Your task to perform on an android device: Go to internet settings Image 0: 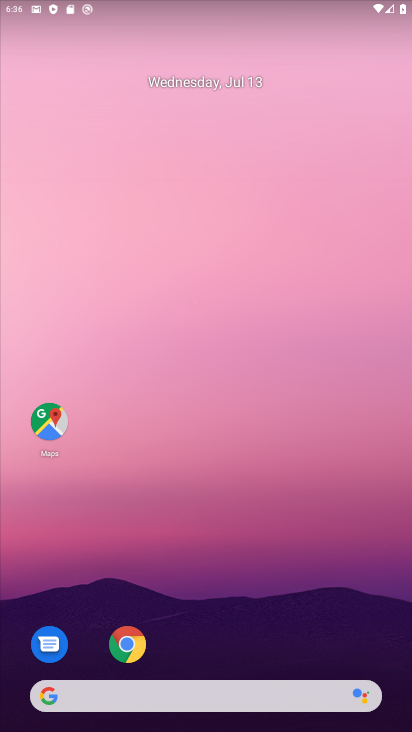
Step 0: press home button
Your task to perform on an android device: Go to internet settings Image 1: 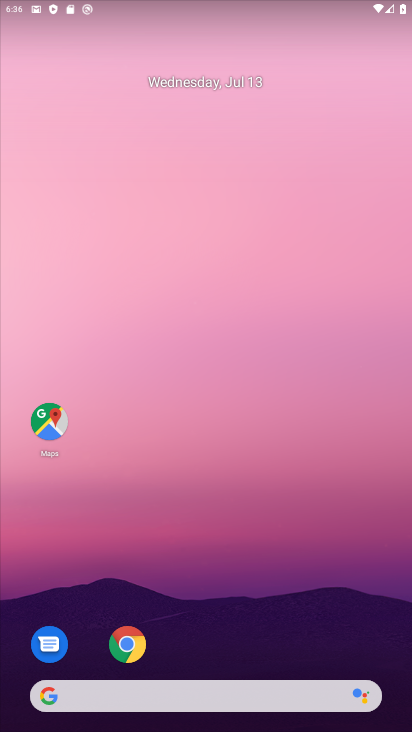
Step 1: drag from (202, 577) to (135, 238)
Your task to perform on an android device: Go to internet settings Image 2: 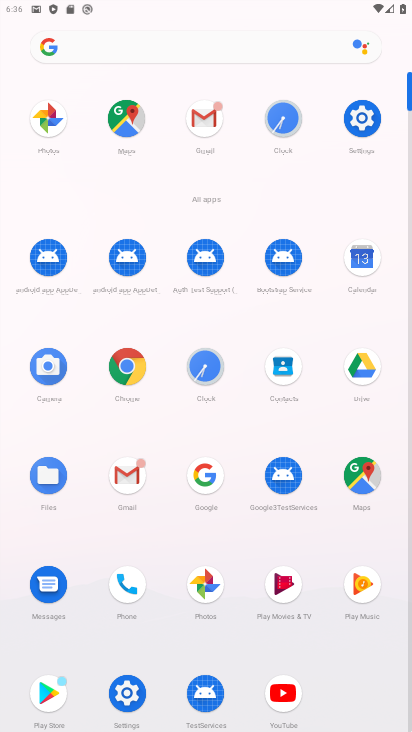
Step 2: click (360, 119)
Your task to perform on an android device: Go to internet settings Image 3: 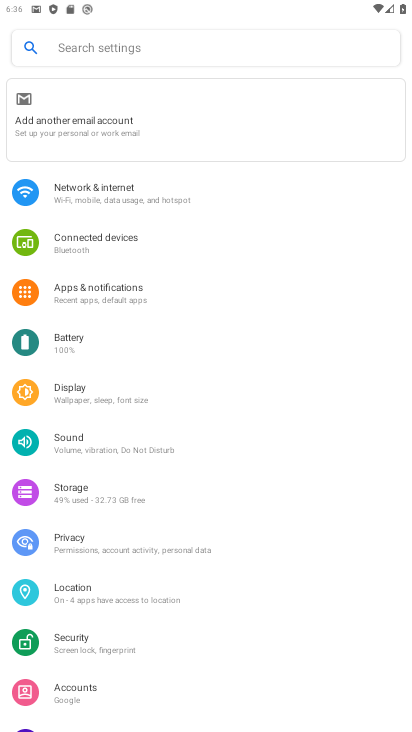
Step 3: click (90, 187)
Your task to perform on an android device: Go to internet settings Image 4: 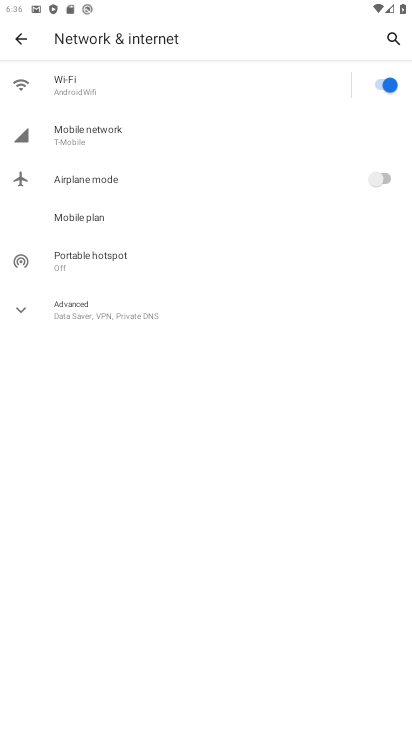
Step 4: click (81, 123)
Your task to perform on an android device: Go to internet settings Image 5: 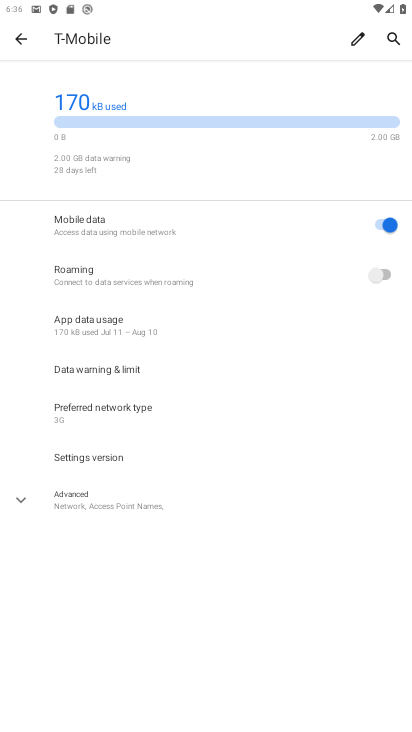
Step 5: task complete